Your task to perform on an android device: Toggle the flashlight Image 0: 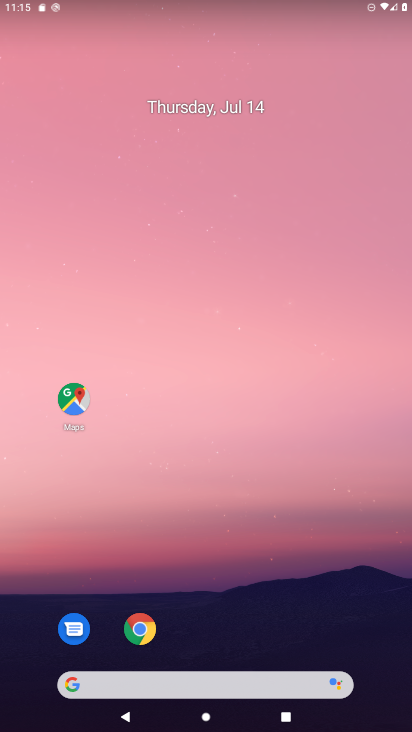
Step 0: drag from (221, 503) to (221, 131)
Your task to perform on an android device: Toggle the flashlight Image 1: 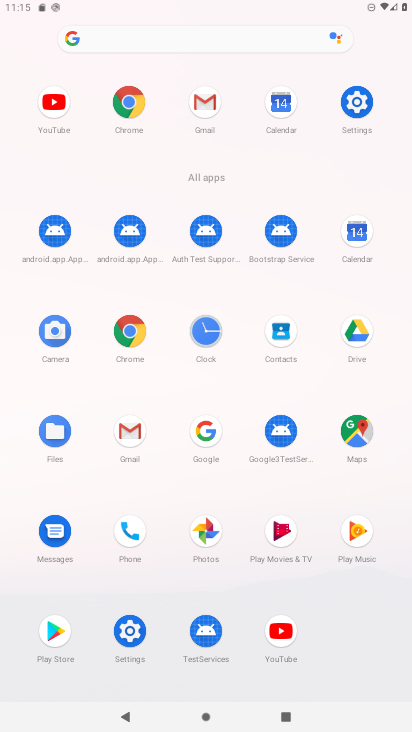
Step 1: task complete